Your task to perform on an android device: Search for the best selling book on Amazon. Image 0: 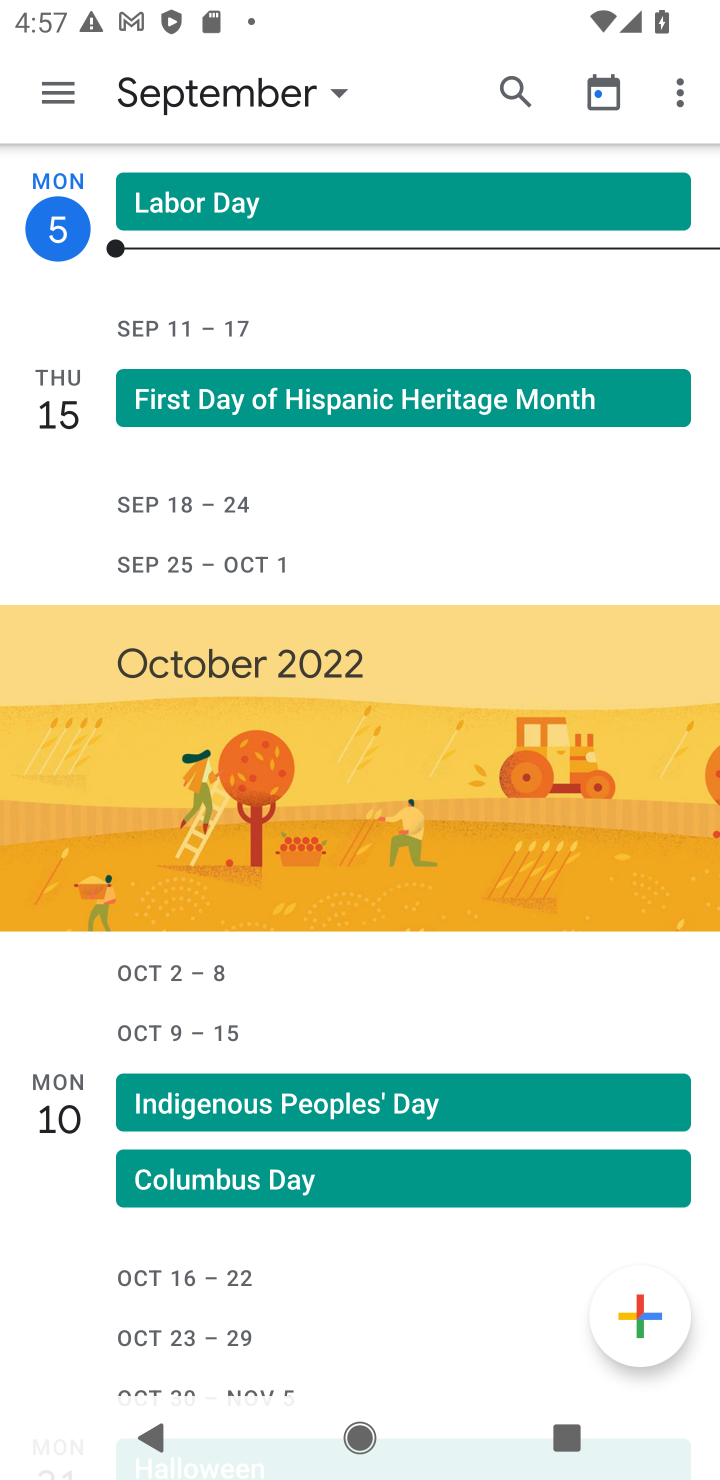
Step 0: press home button
Your task to perform on an android device: Search for the best selling book on Amazon. Image 1: 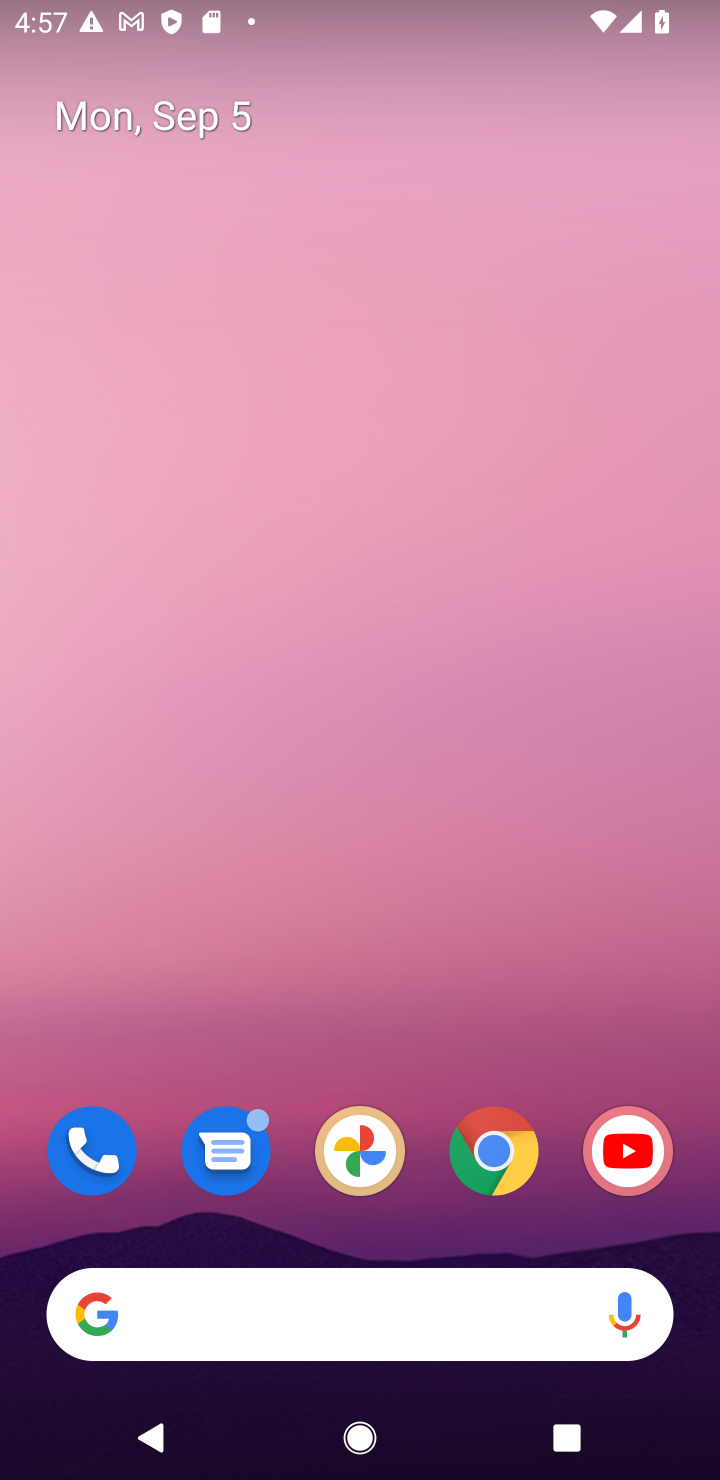
Step 1: click (465, 1178)
Your task to perform on an android device: Search for the best selling book on Amazon. Image 2: 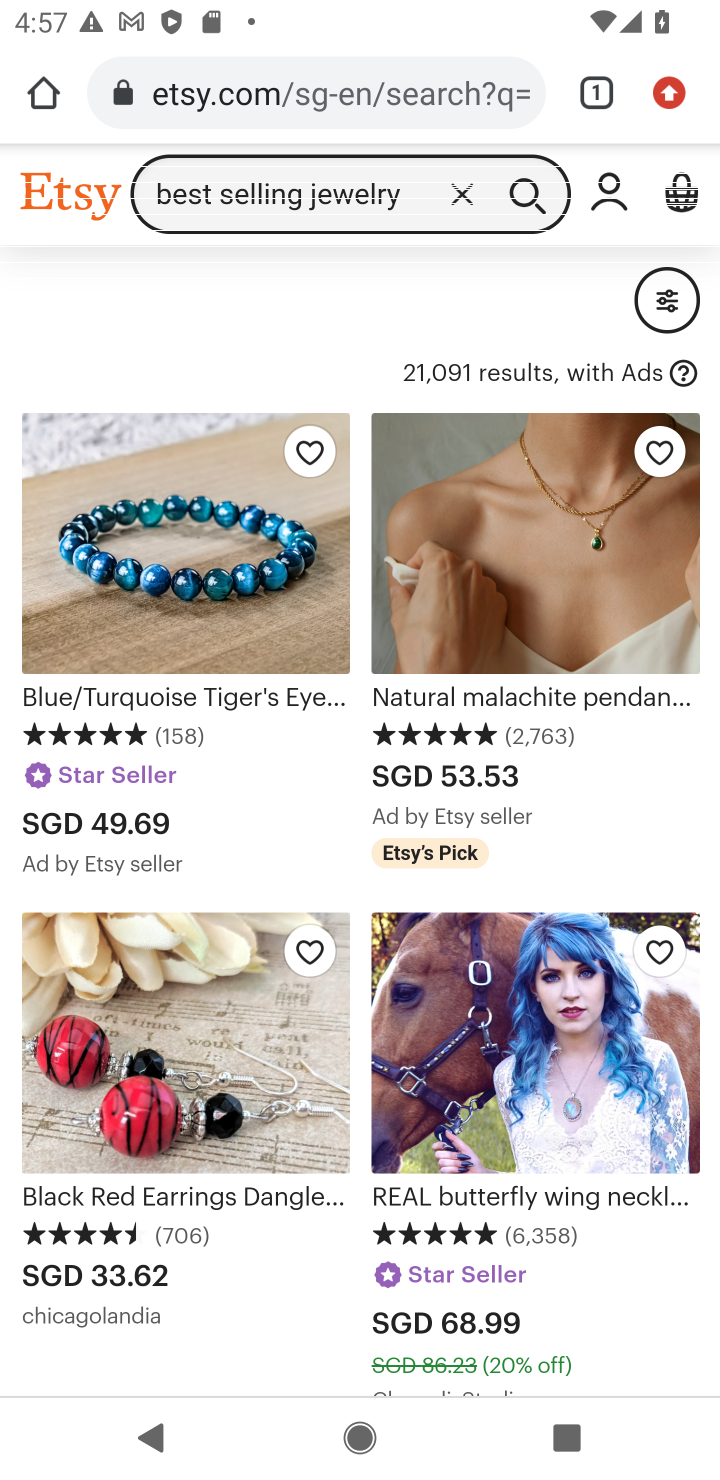
Step 2: click (471, 109)
Your task to perform on an android device: Search for the best selling book on Amazon. Image 3: 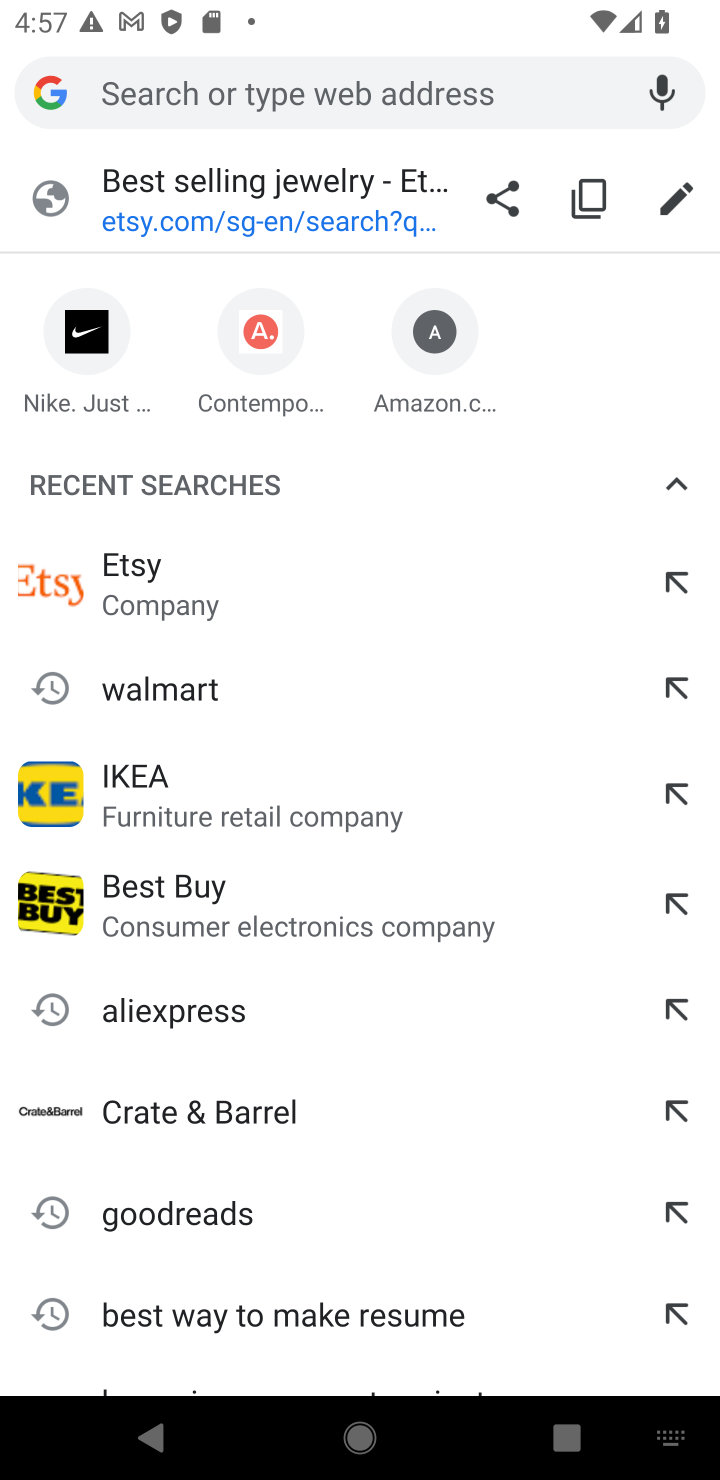
Step 3: type "amazon"
Your task to perform on an android device: Search for the best selling book on Amazon. Image 4: 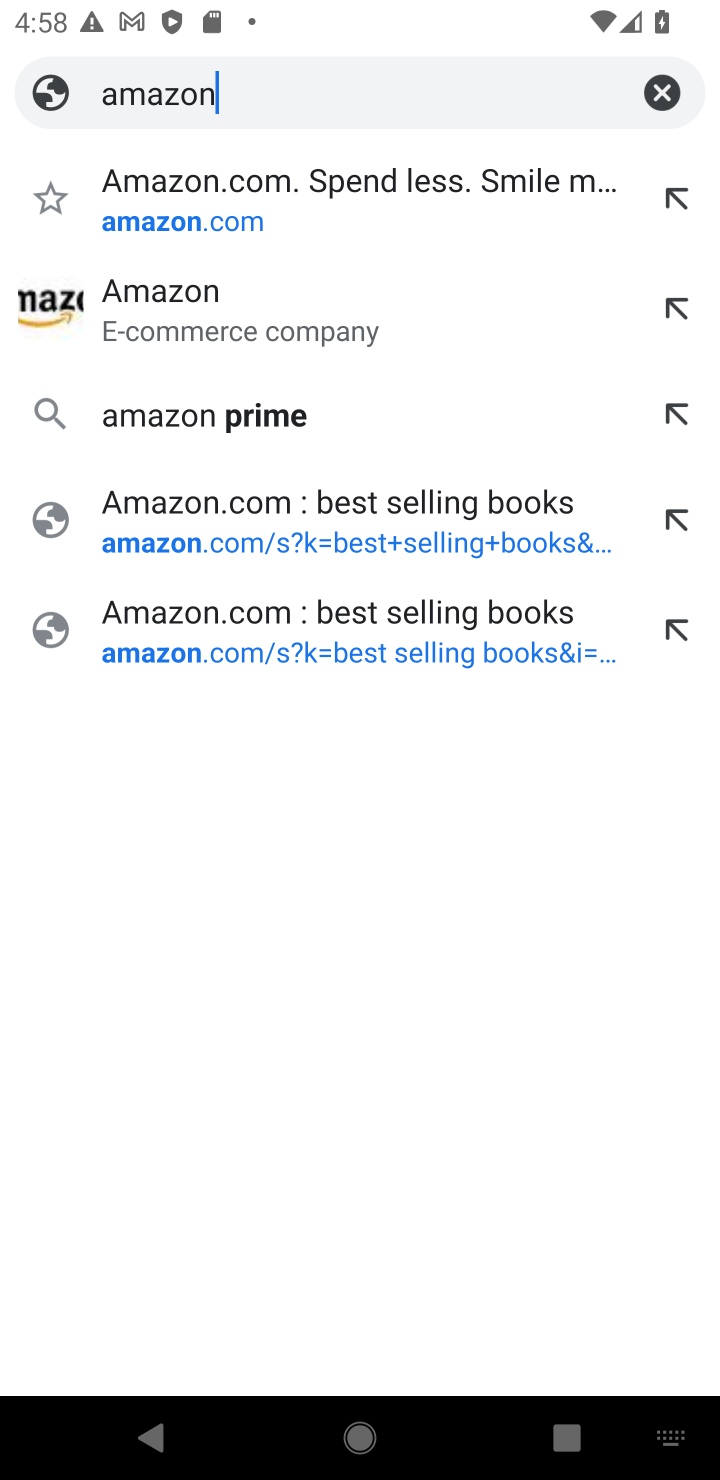
Step 4: click (308, 207)
Your task to perform on an android device: Search for the best selling book on Amazon. Image 5: 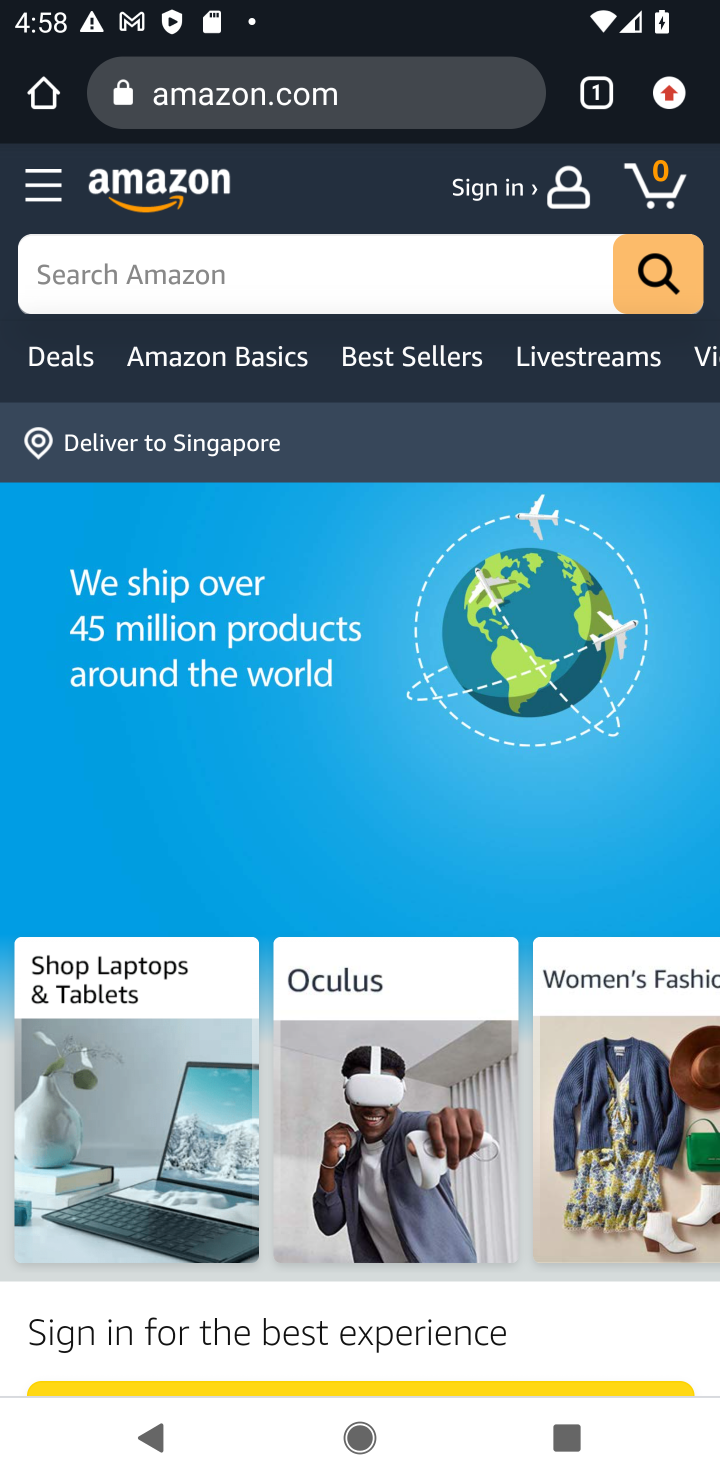
Step 5: click (470, 286)
Your task to perform on an android device: Search for the best selling book on Amazon. Image 6: 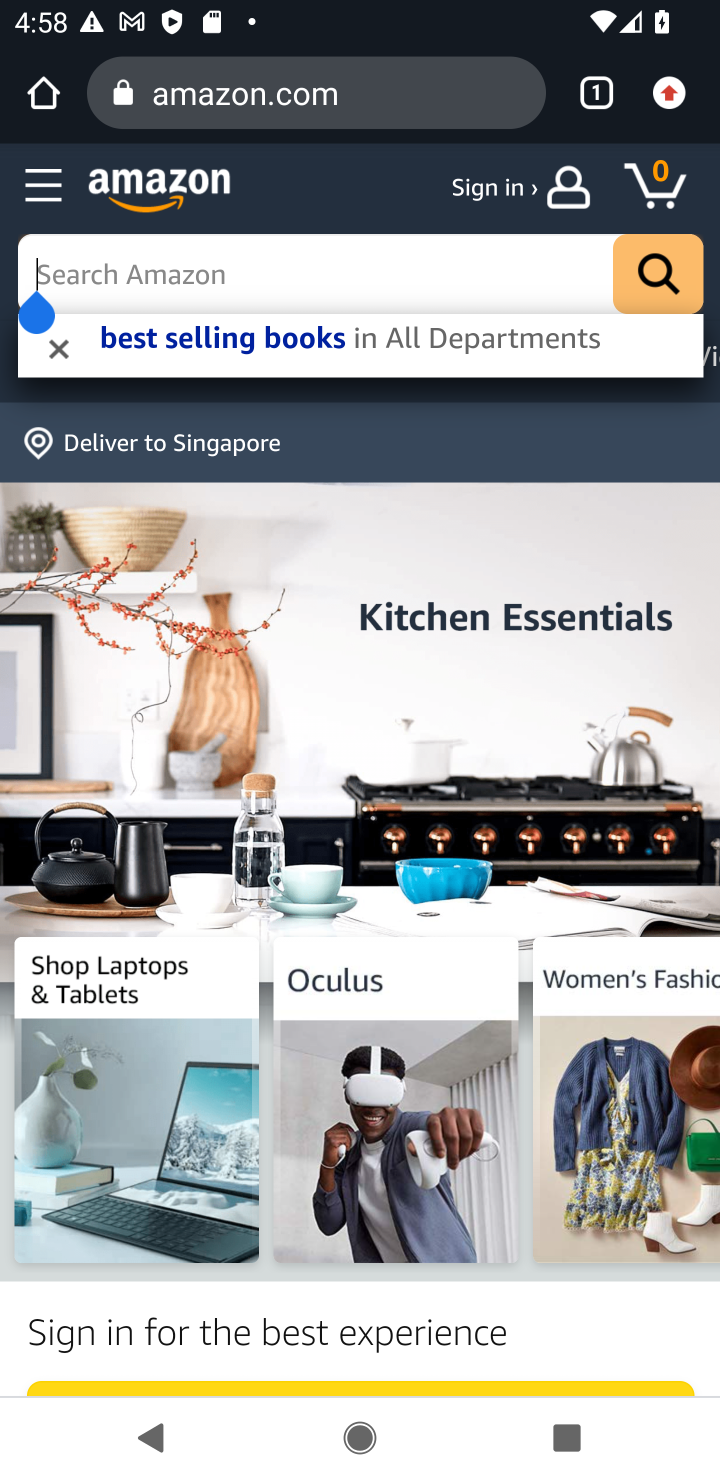
Step 6: click (374, 338)
Your task to perform on an android device: Search for the best selling book on Amazon. Image 7: 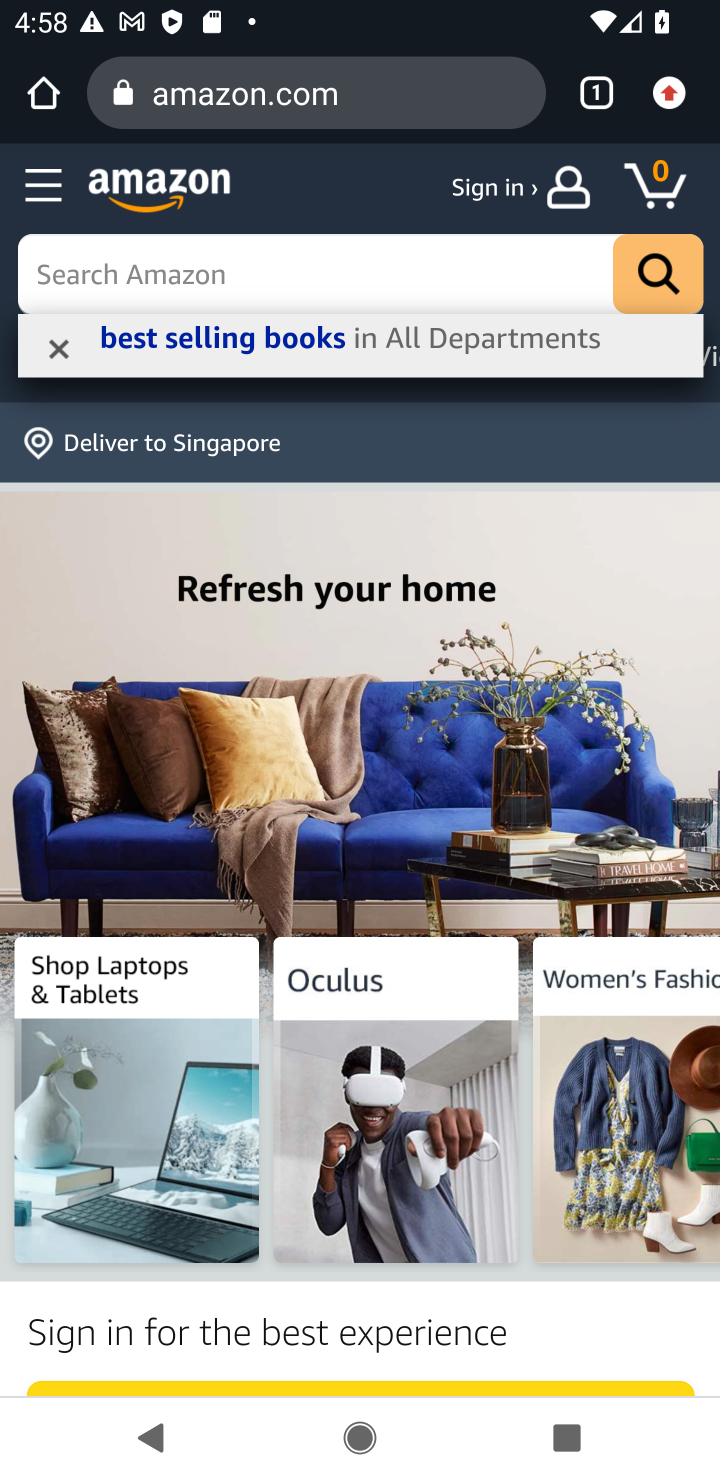
Step 7: click (311, 332)
Your task to perform on an android device: Search for the best selling book on Amazon. Image 8: 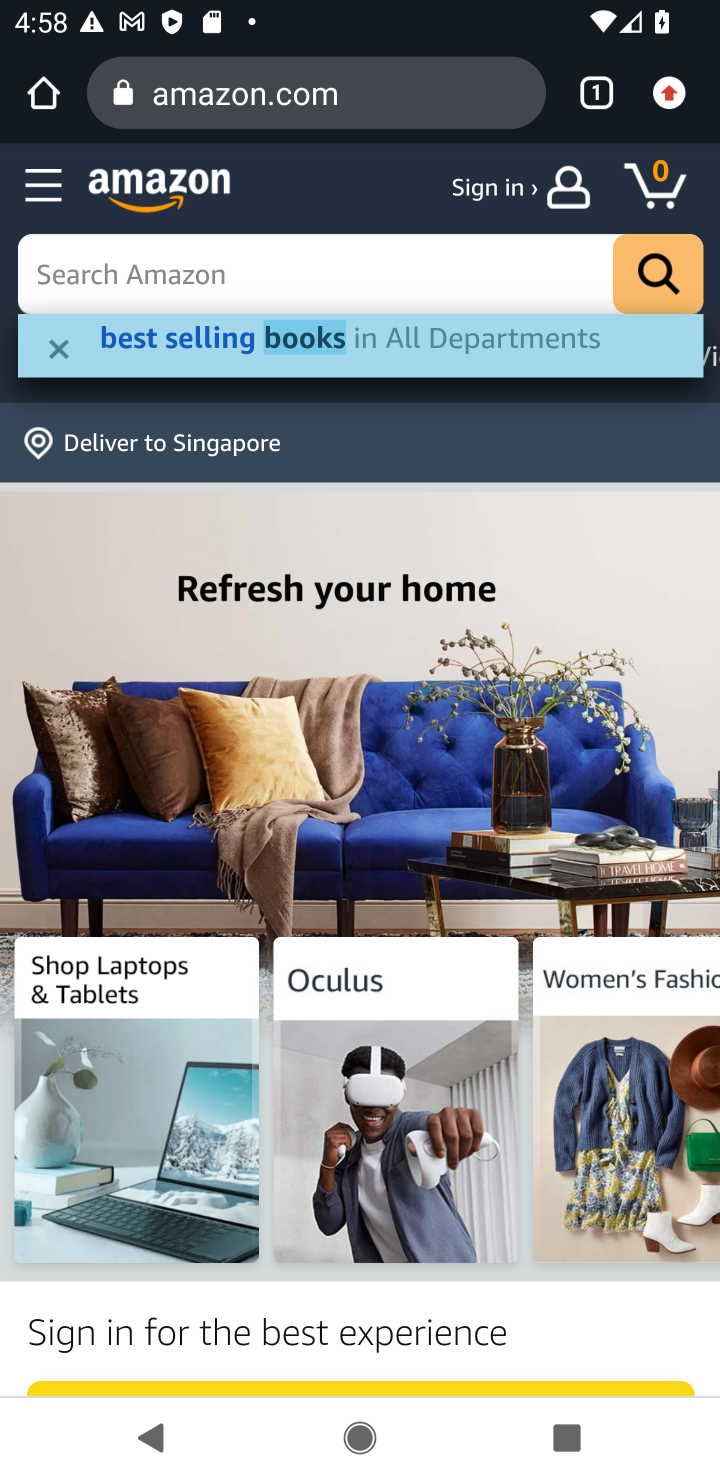
Step 8: click (311, 332)
Your task to perform on an android device: Search for the best selling book on Amazon. Image 9: 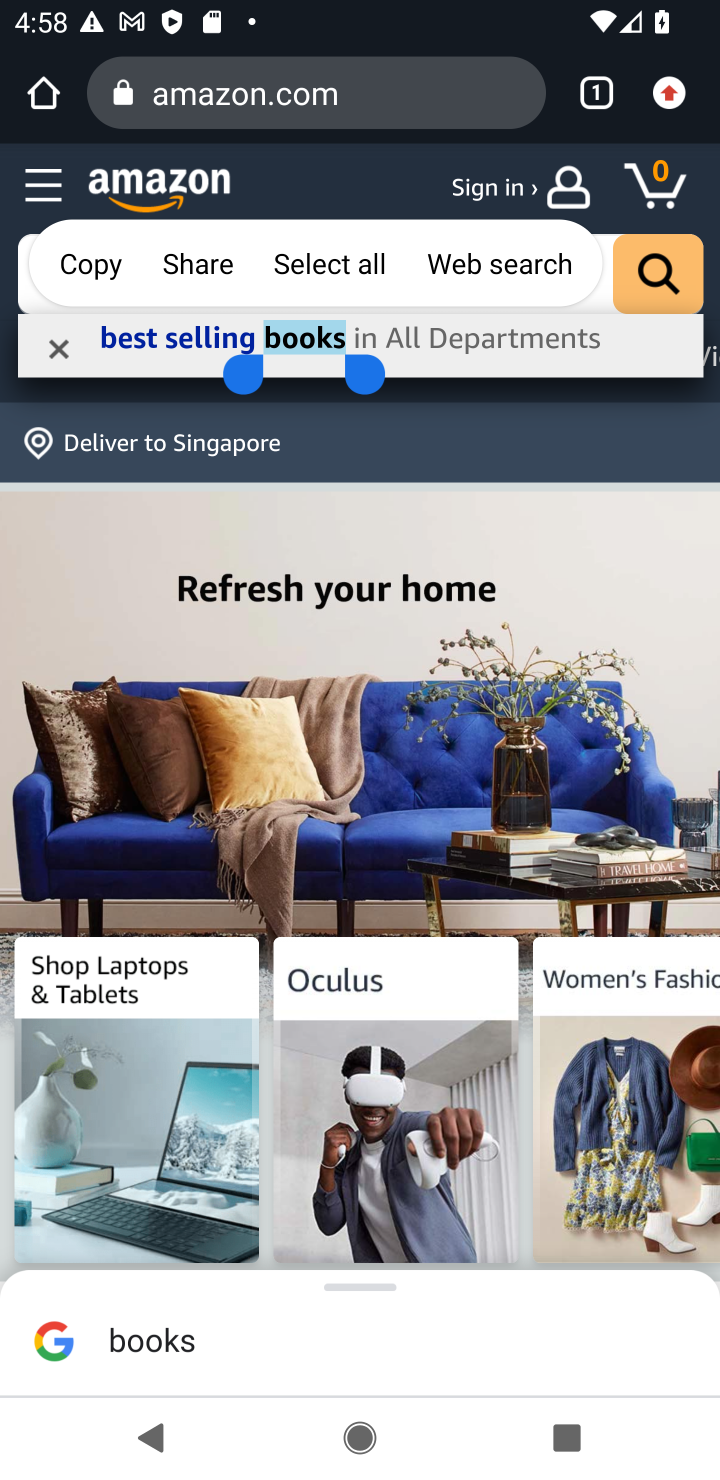
Step 9: click (422, 344)
Your task to perform on an android device: Search for the best selling book on Amazon. Image 10: 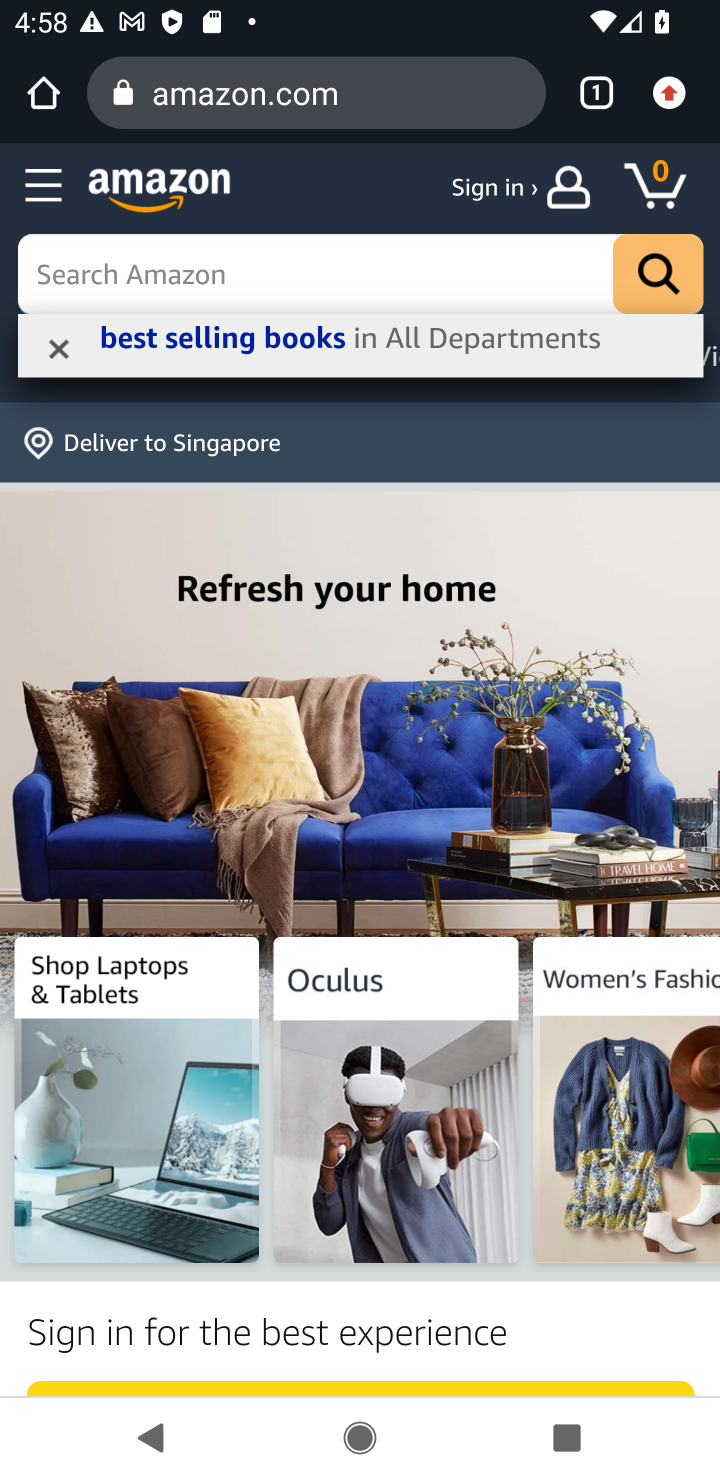
Step 10: click (422, 344)
Your task to perform on an android device: Search for the best selling book on Amazon. Image 11: 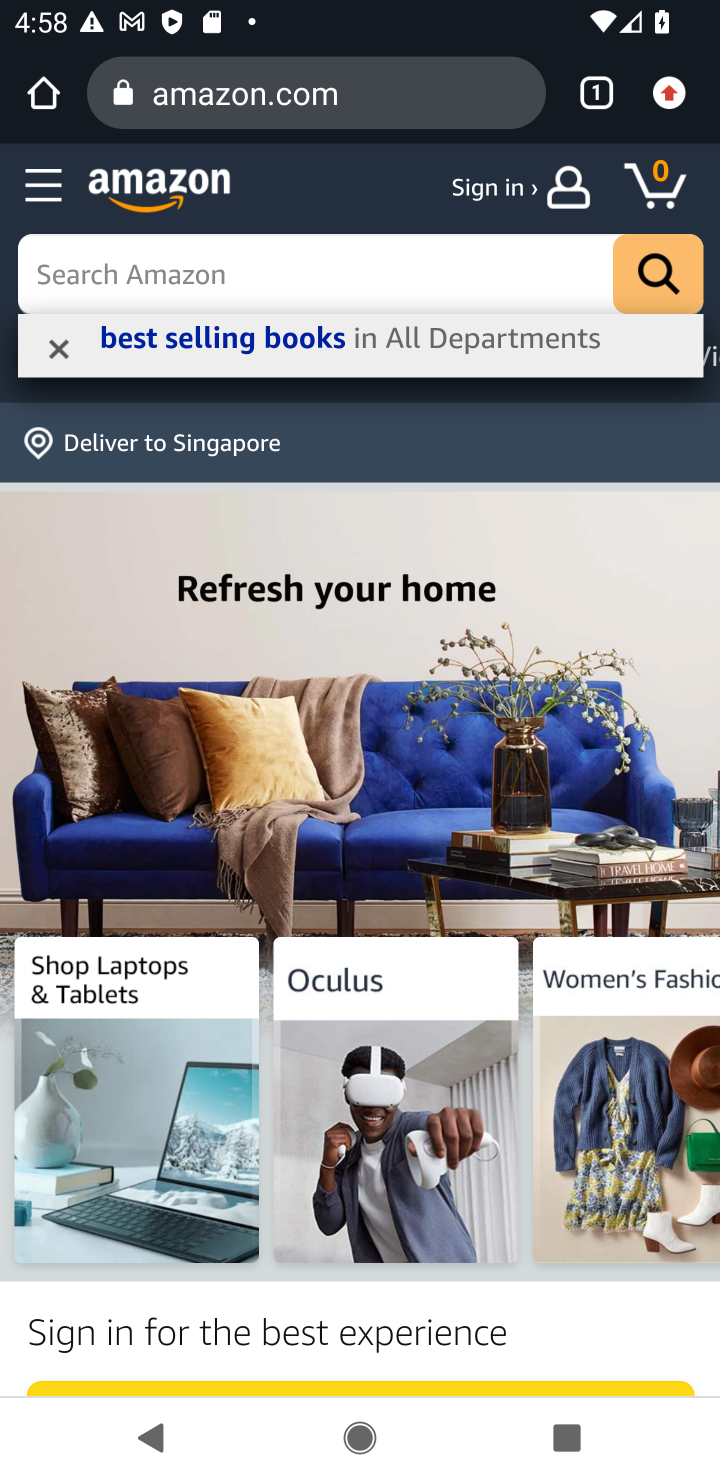
Step 11: click (335, 276)
Your task to perform on an android device: Search for the best selling book on Amazon. Image 12: 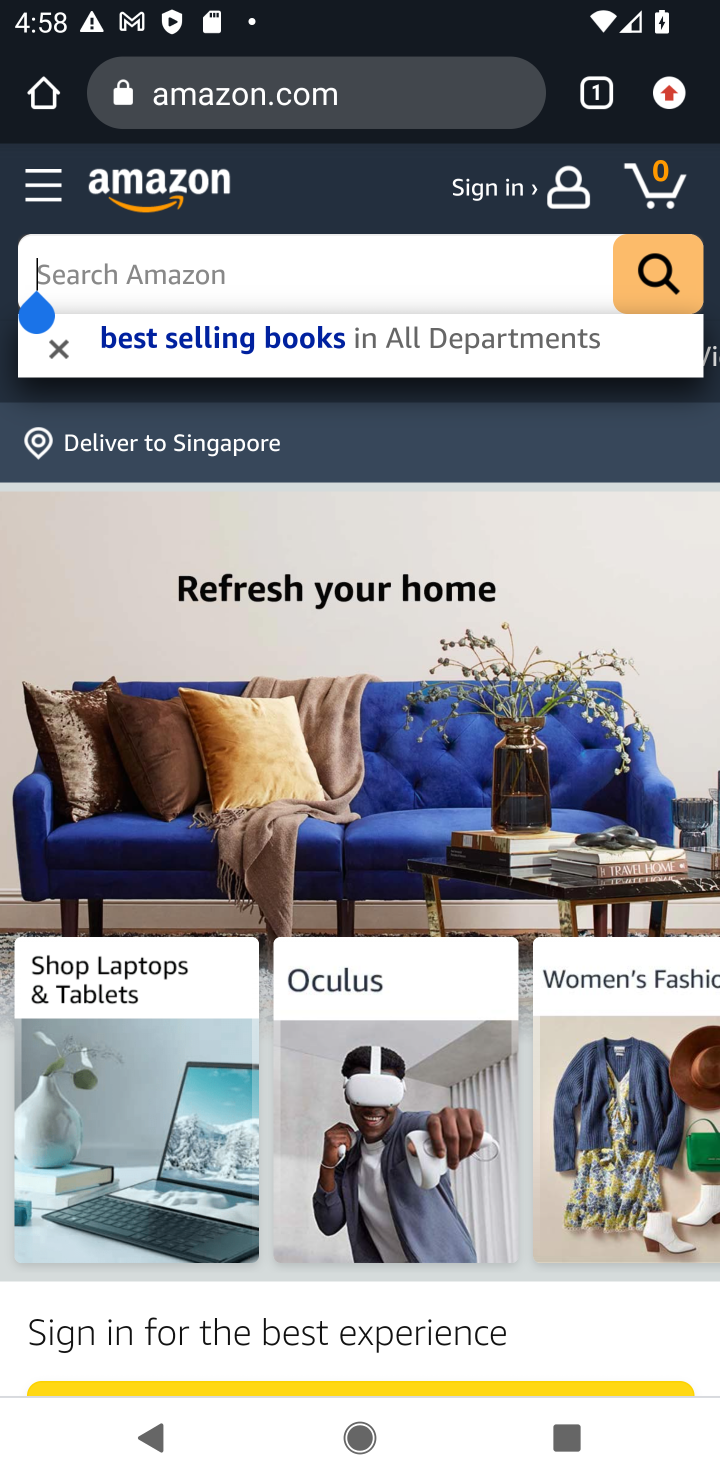
Step 12: click (335, 280)
Your task to perform on an android device: Search for the best selling book on Amazon. Image 13: 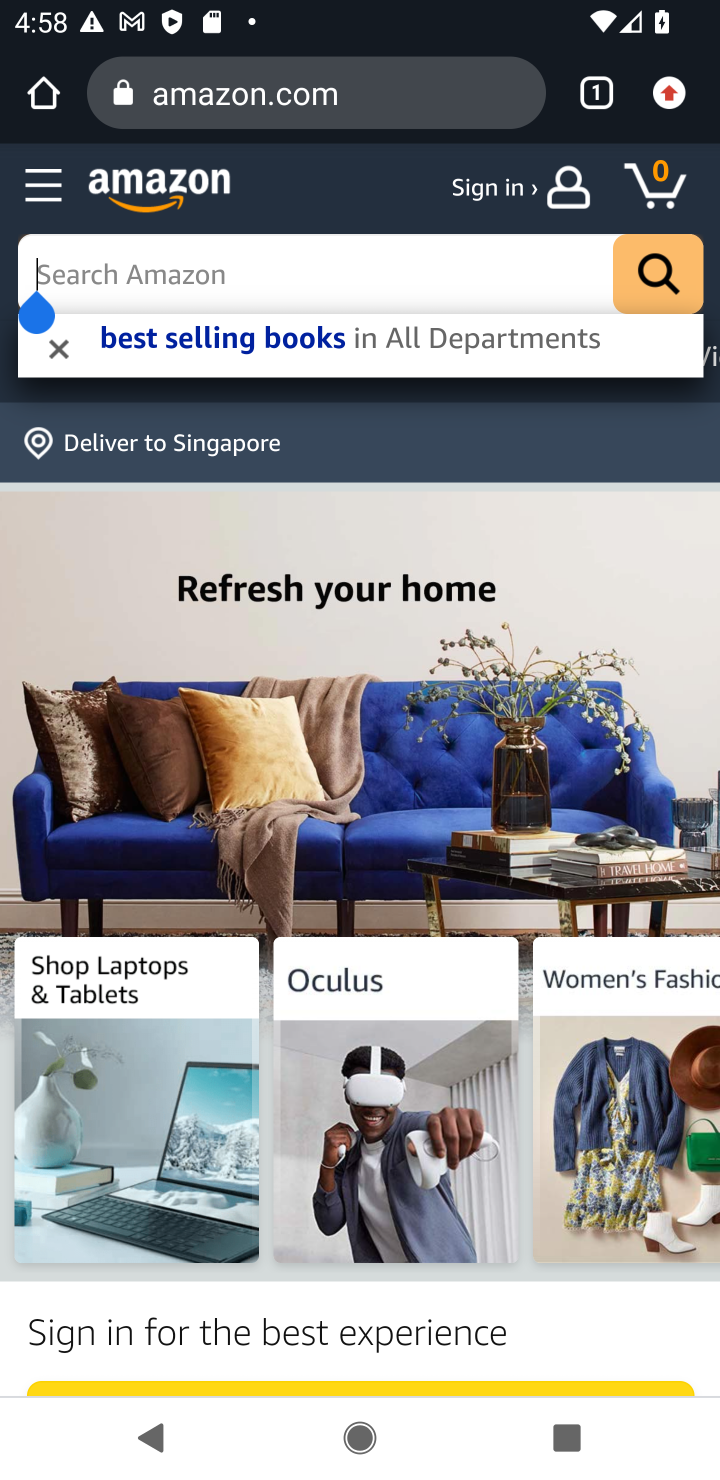
Step 13: type "best selling book"
Your task to perform on an android device: Search for the best selling book on Amazon. Image 14: 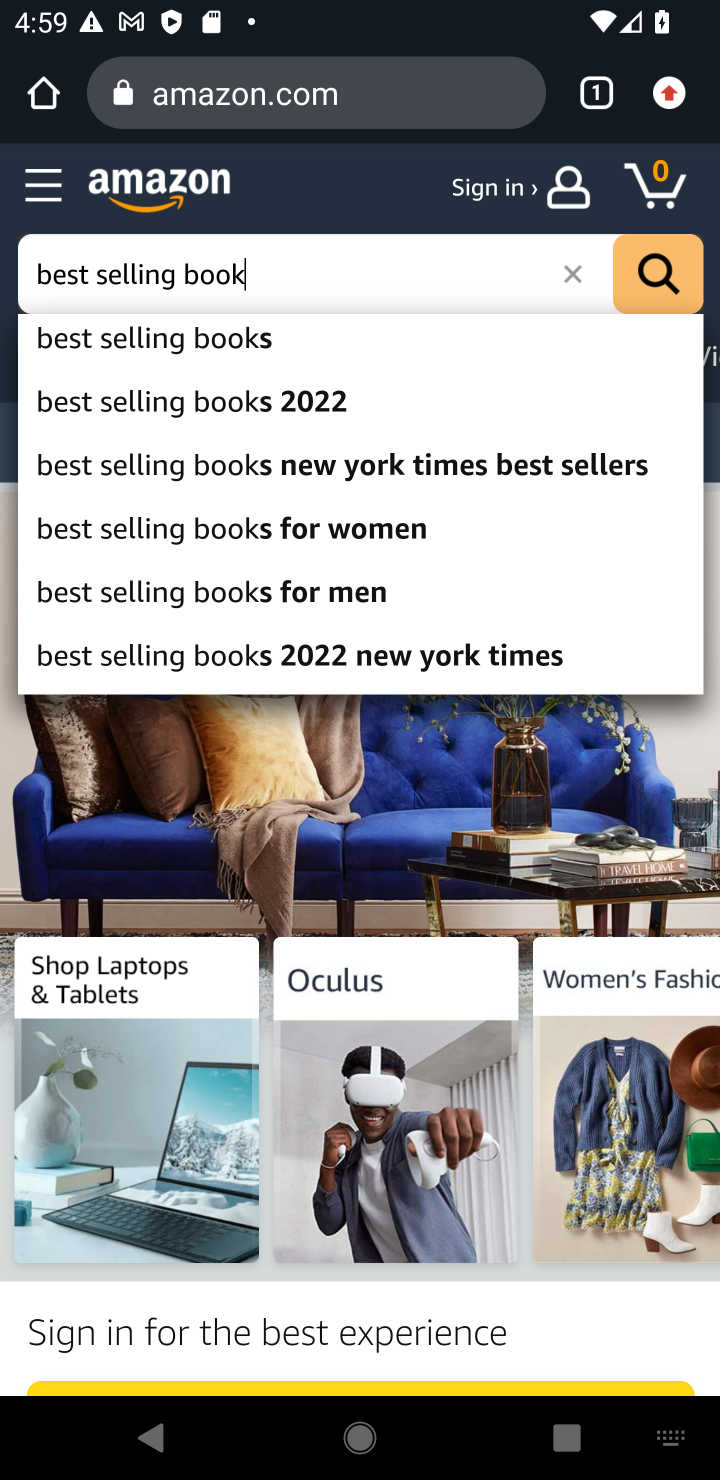
Step 14: click (240, 335)
Your task to perform on an android device: Search for the best selling book on Amazon. Image 15: 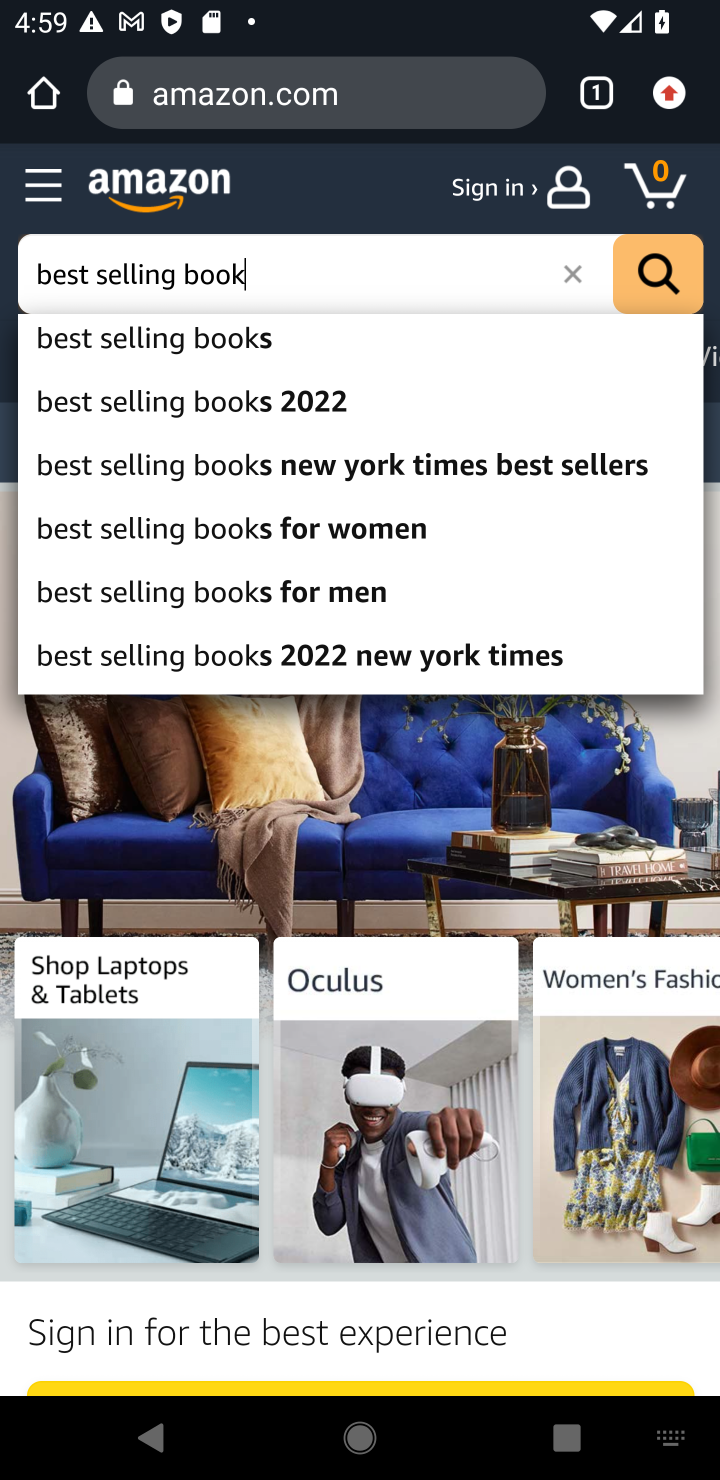
Step 15: click (240, 335)
Your task to perform on an android device: Search for the best selling book on Amazon. Image 16: 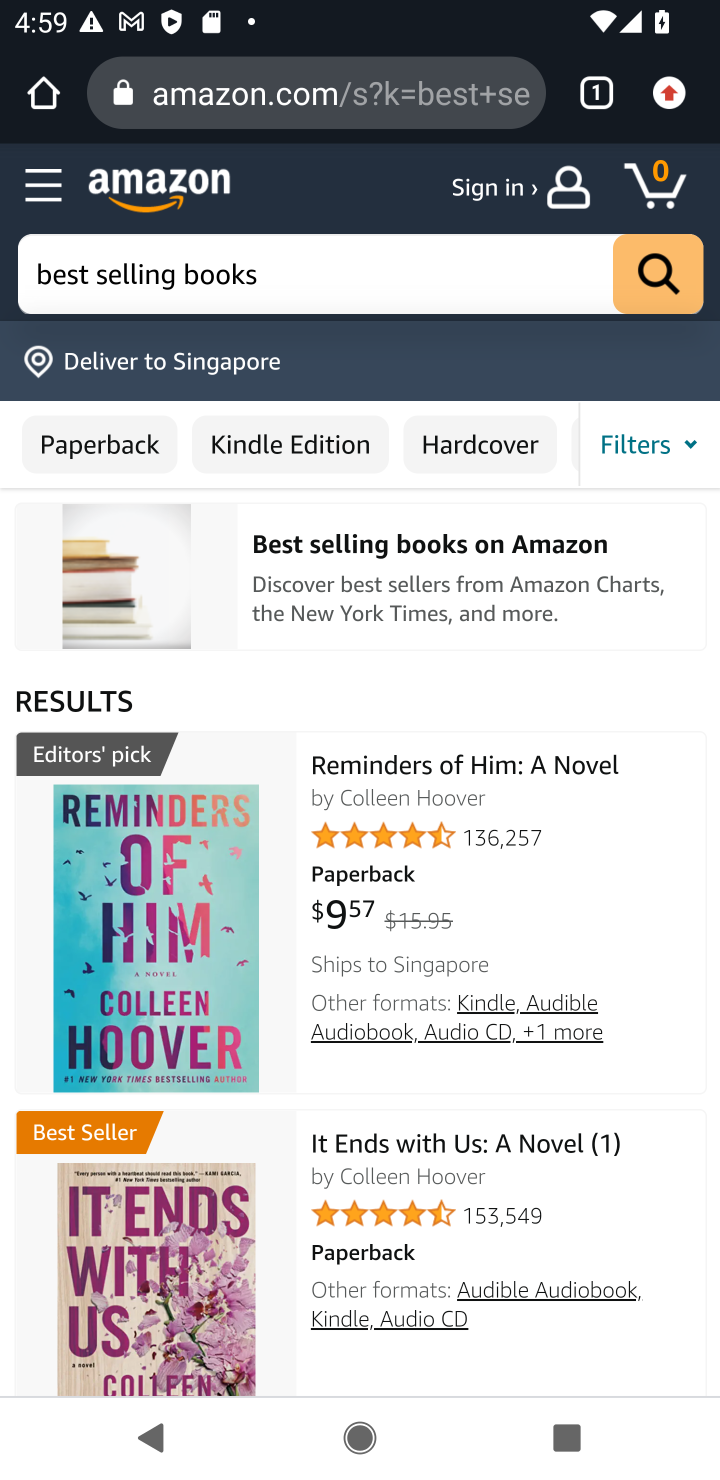
Step 16: task complete